Your task to perform on an android device: toggle location history Image 0: 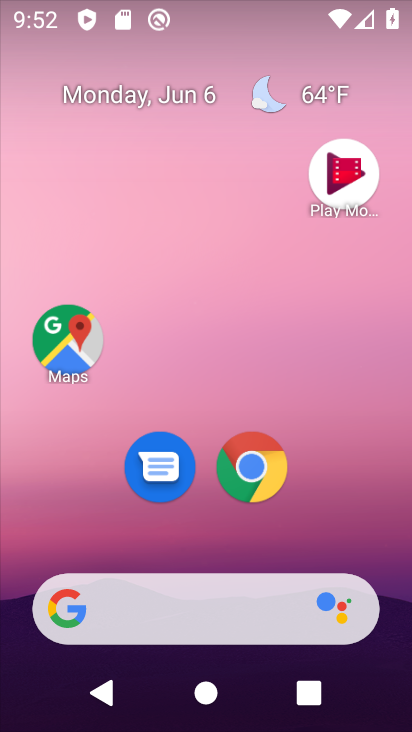
Step 0: drag from (94, 571) to (185, 92)
Your task to perform on an android device: toggle location history Image 1: 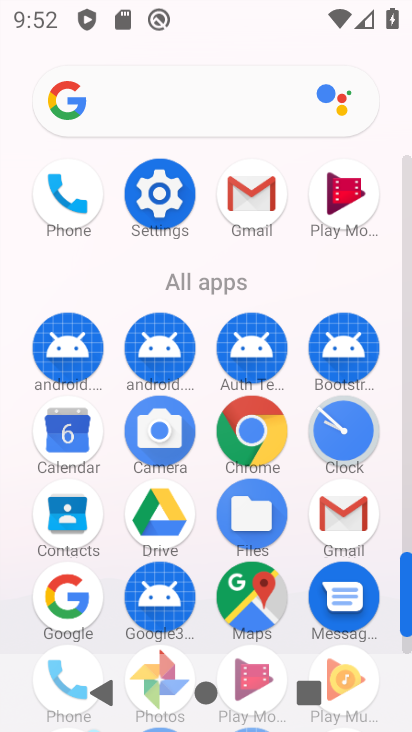
Step 1: drag from (101, 593) to (209, 289)
Your task to perform on an android device: toggle location history Image 2: 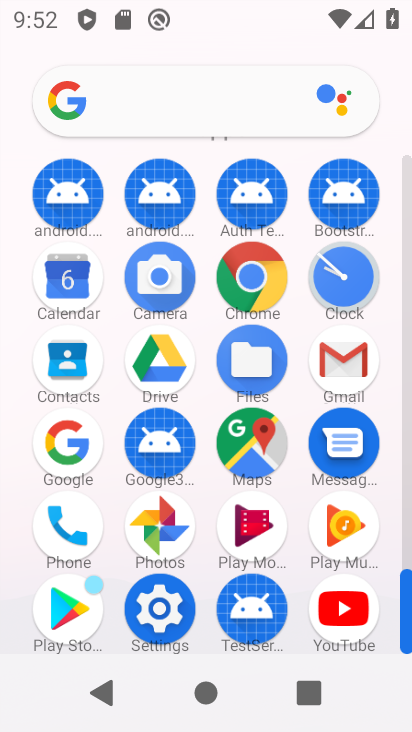
Step 2: click (170, 613)
Your task to perform on an android device: toggle location history Image 3: 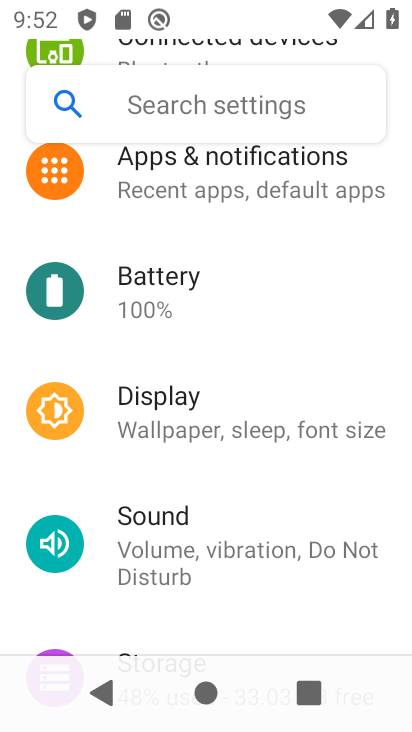
Step 3: drag from (181, 584) to (360, 149)
Your task to perform on an android device: toggle location history Image 4: 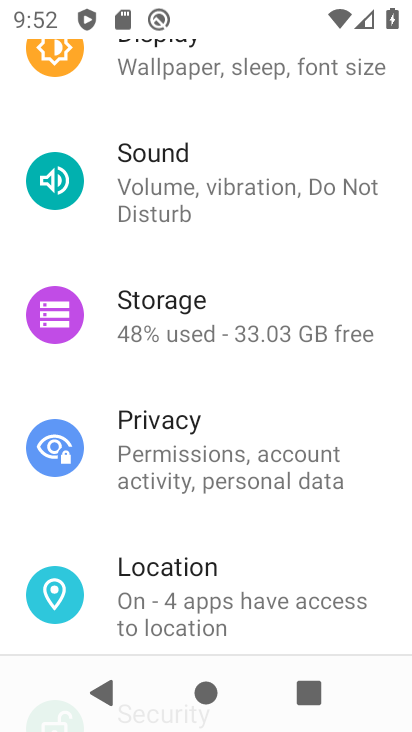
Step 4: click (206, 584)
Your task to perform on an android device: toggle location history Image 5: 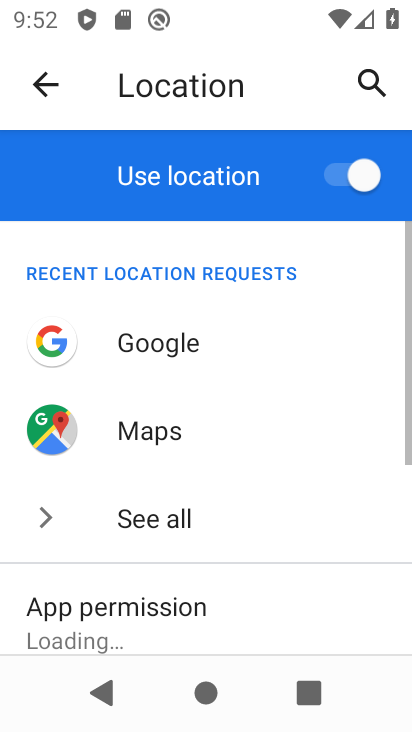
Step 5: drag from (183, 577) to (303, 204)
Your task to perform on an android device: toggle location history Image 6: 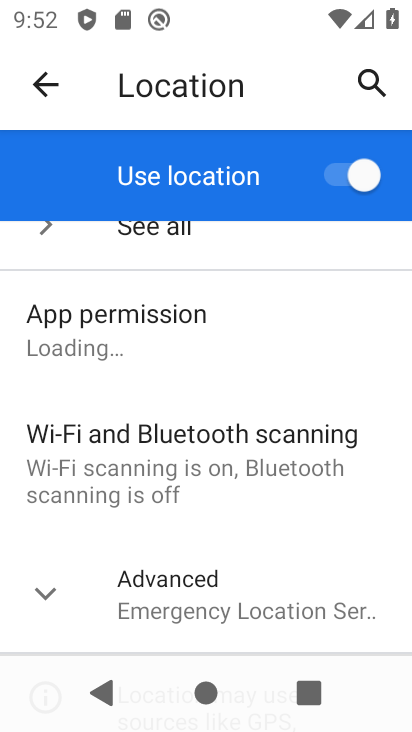
Step 6: click (185, 573)
Your task to perform on an android device: toggle location history Image 7: 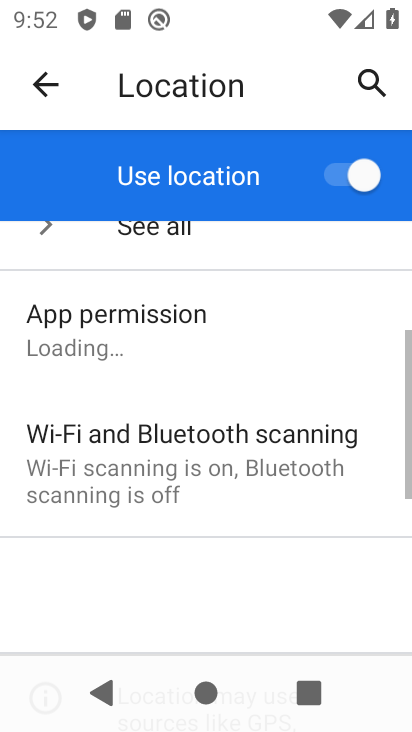
Step 7: drag from (184, 573) to (274, 202)
Your task to perform on an android device: toggle location history Image 8: 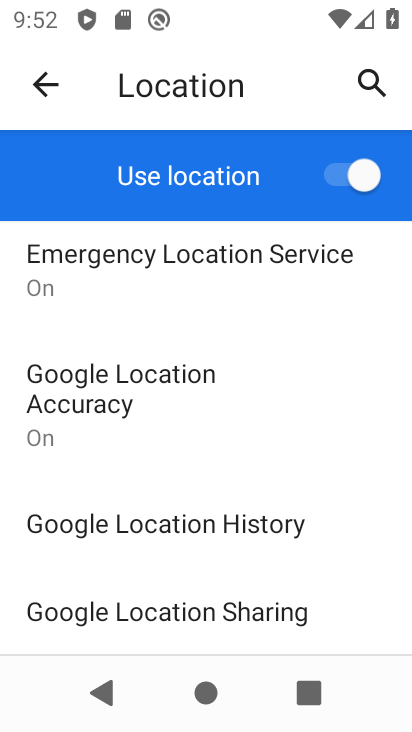
Step 8: click (222, 546)
Your task to perform on an android device: toggle location history Image 9: 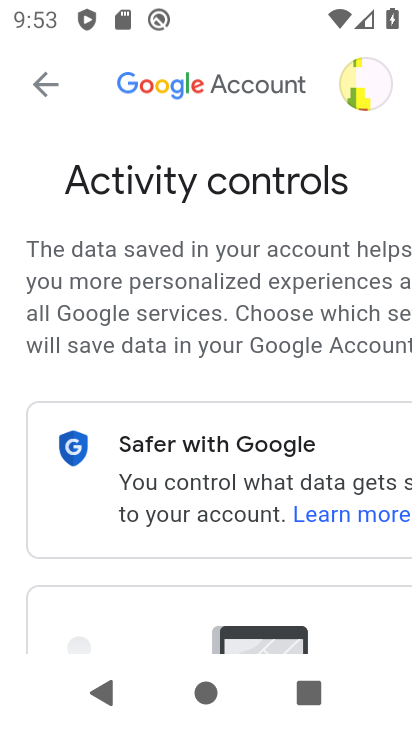
Step 9: drag from (245, 626) to (377, 149)
Your task to perform on an android device: toggle location history Image 10: 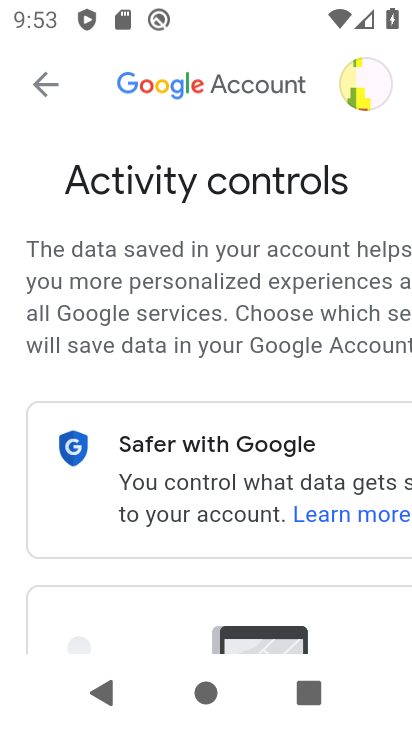
Step 10: drag from (280, 602) to (391, 117)
Your task to perform on an android device: toggle location history Image 11: 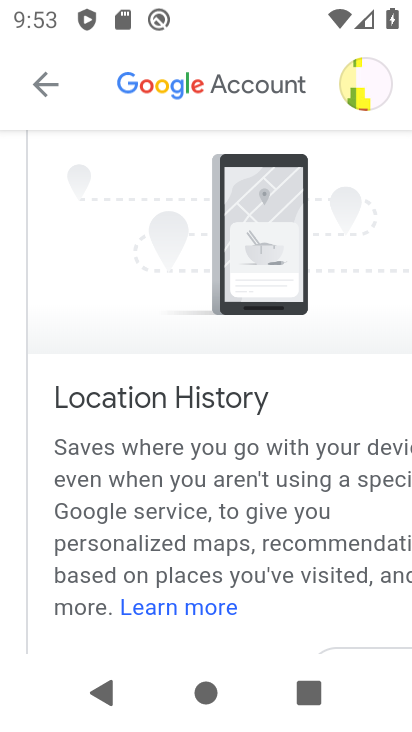
Step 11: drag from (216, 483) to (291, 174)
Your task to perform on an android device: toggle location history Image 12: 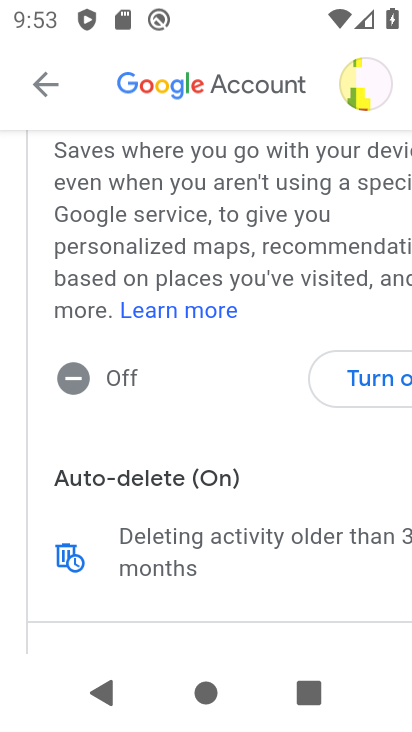
Step 12: click (370, 368)
Your task to perform on an android device: toggle location history Image 13: 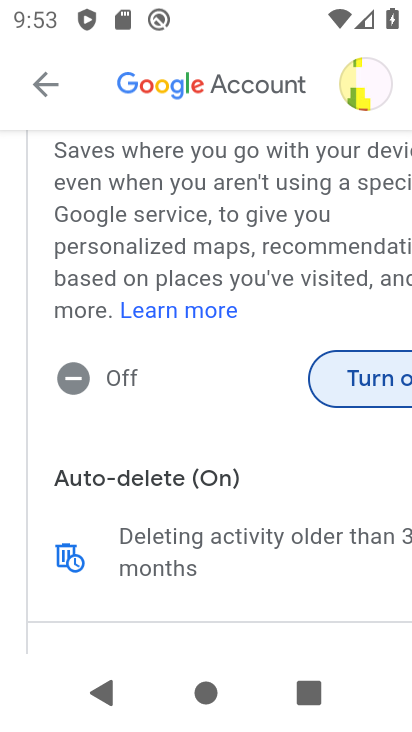
Step 13: click (375, 377)
Your task to perform on an android device: toggle location history Image 14: 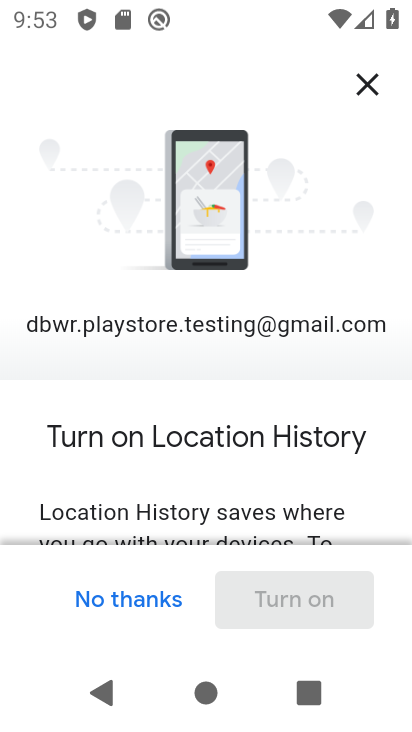
Step 14: drag from (246, 530) to (389, 48)
Your task to perform on an android device: toggle location history Image 15: 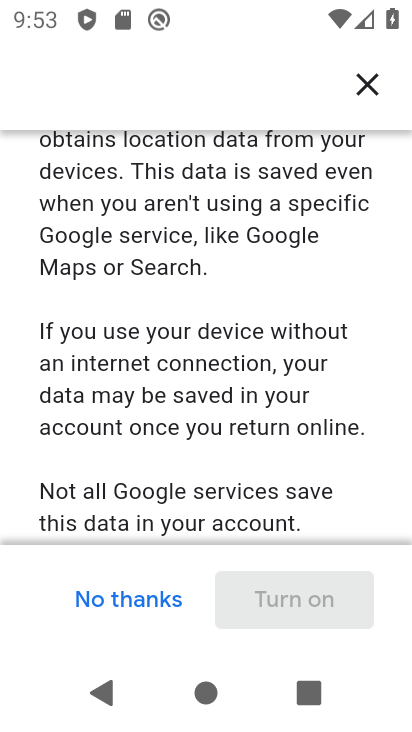
Step 15: drag from (294, 485) to (411, 70)
Your task to perform on an android device: toggle location history Image 16: 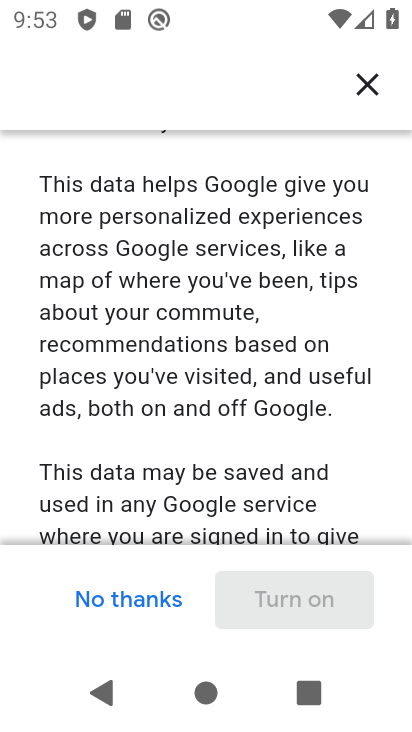
Step 16: drag from (274, 509) to (380, 113)
Your task to perform on an android device: toggle location history Image 17: 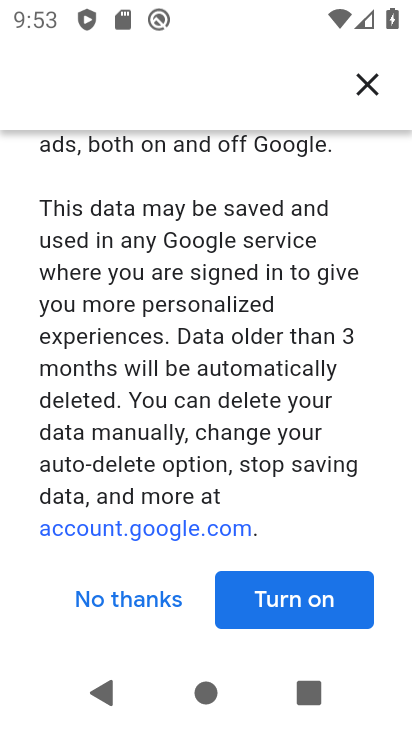
Step 17: click (266, 589)
Your task to perform on an android device: toggle location history Image 18: 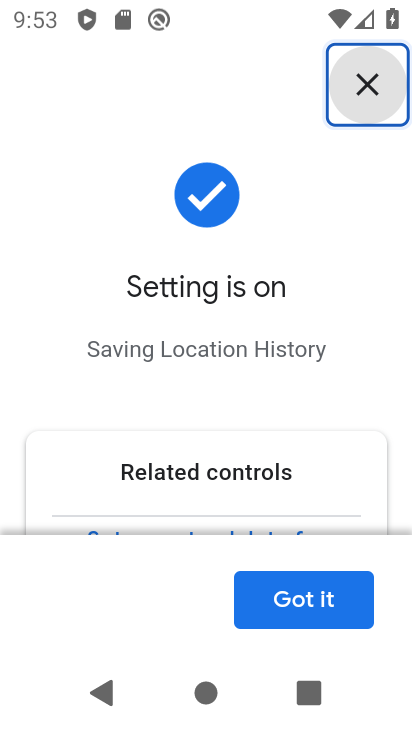
Step 18: click (273, 595)
Your task to perform on an android device: toggle location history Image 19: 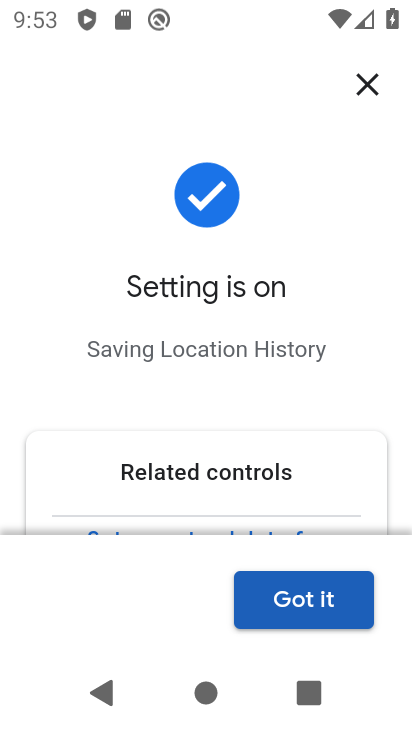
Step 19: click (305, 614)
Your task to perform on an android device: toggle location history Image 20: 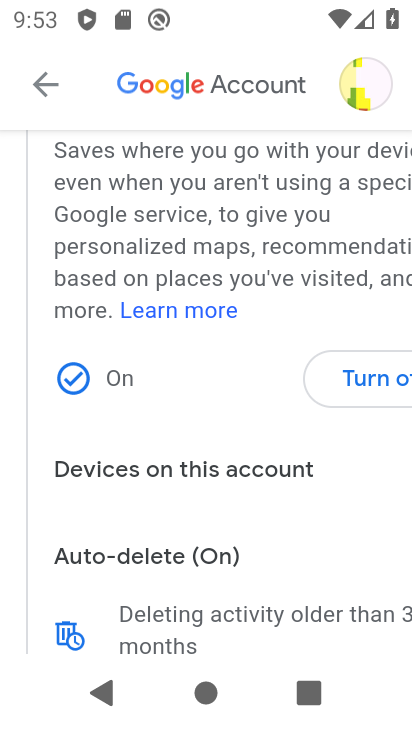
Step 20: task complete